Your task to perform on an android device: Show me the alarms in the clock app Image 0: 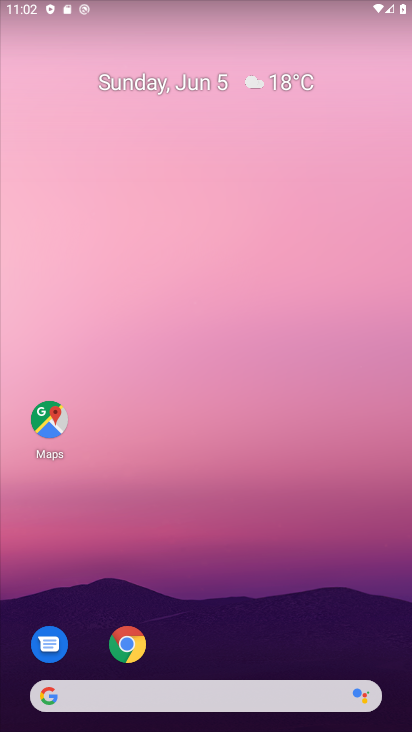
Step 0: drag from (295, 715) to (363, 289)
Your task to perform on an android device: Show me the alarms in the clock app Image 1: 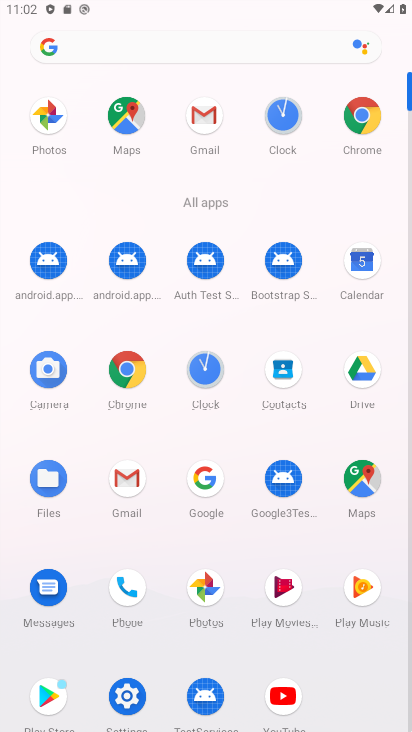
Step 1: click (201, 360)
Your task to perform on an android device: Show me the alarms in the clock app Image 2: 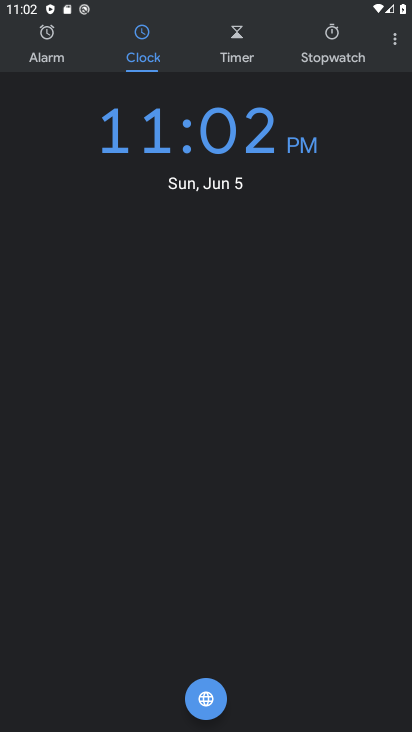
Step 2: click (55, 45)
Your task to perform on an android device: Show me the alarms in the clock app Image 3: 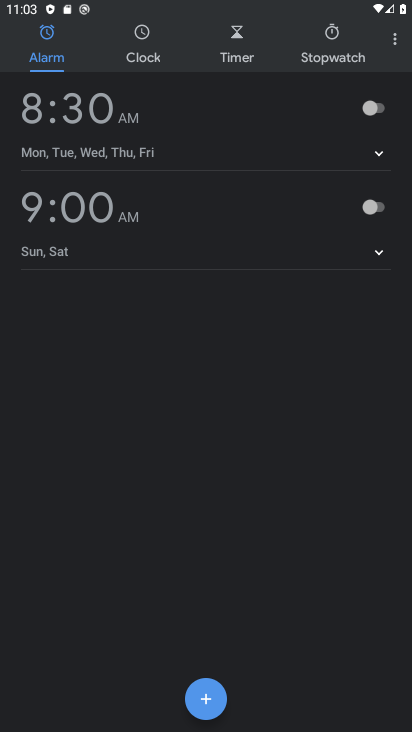
Step 3: task complete